Your task to perform on an android device: Open ESPN.com Image 0: 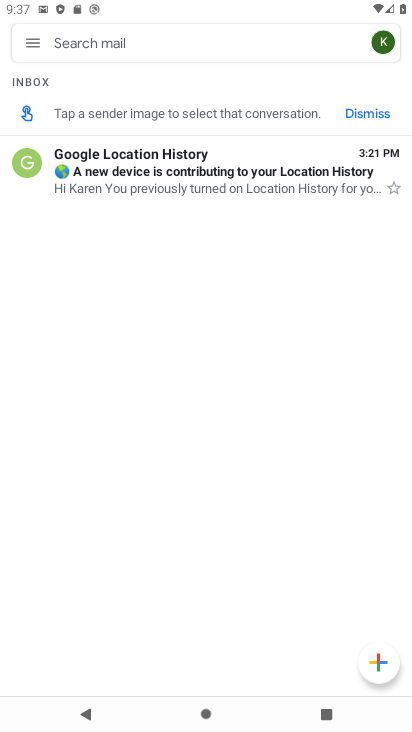
Step 0: press home button
Your task to perform on an android device: Open ESPN.com Image 1: 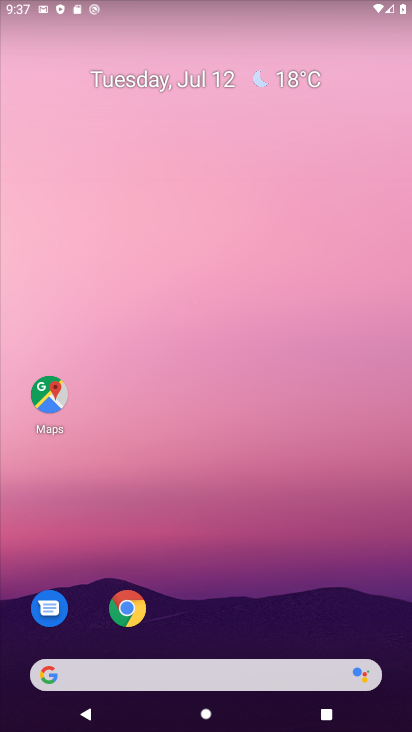
Step 1: click (128, 608)
Your task to perform on an android device: Open ESPN.com Image 2: 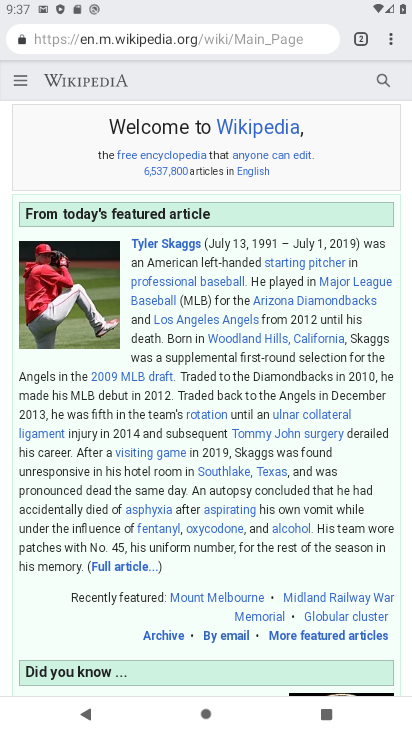
Step 2: click (392, 41)
Your task to perform on an android device: Open ESPN.com Image 3: 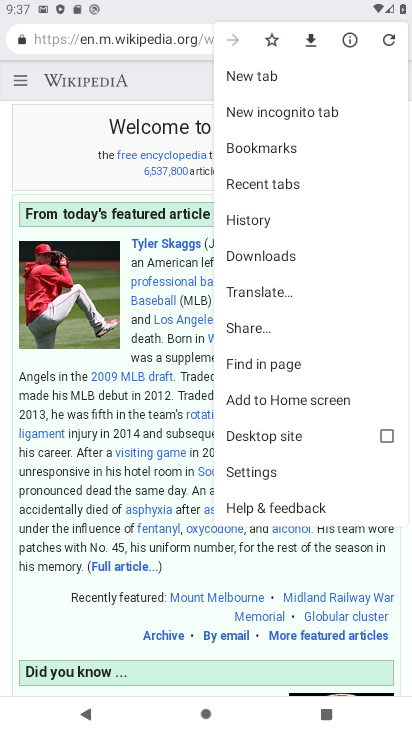
Step 3: click (269, 76)
Your task to perform on an android device: Open ESPN.com Image 4: 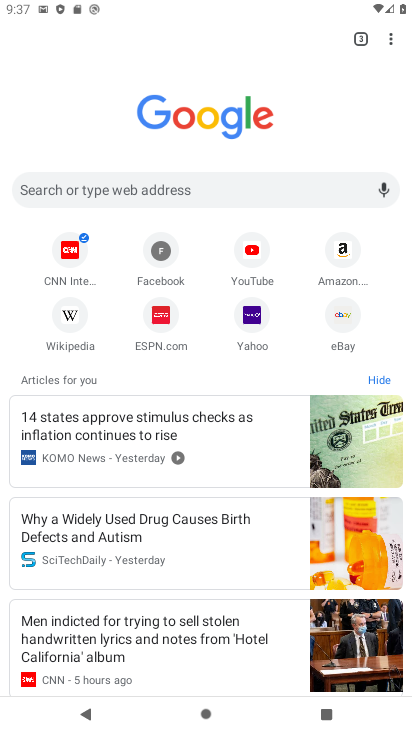
Step 4: click (161, 322)
Your task to perform on an android device: Open ESPN.com Image 5: 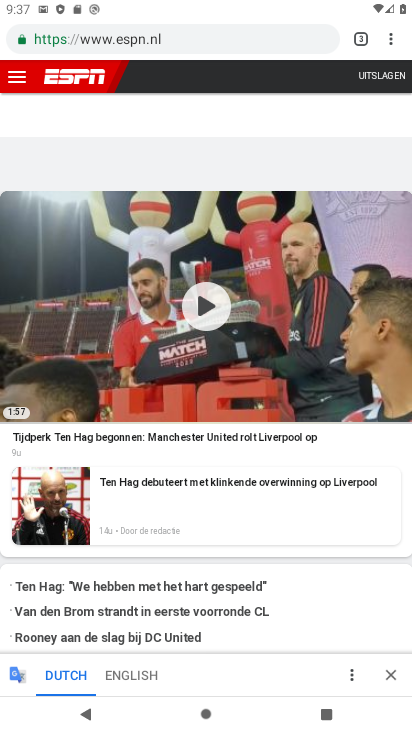
Step 5: task complete